Your task to perform on an android device: Toggle the flashlight Image 0: 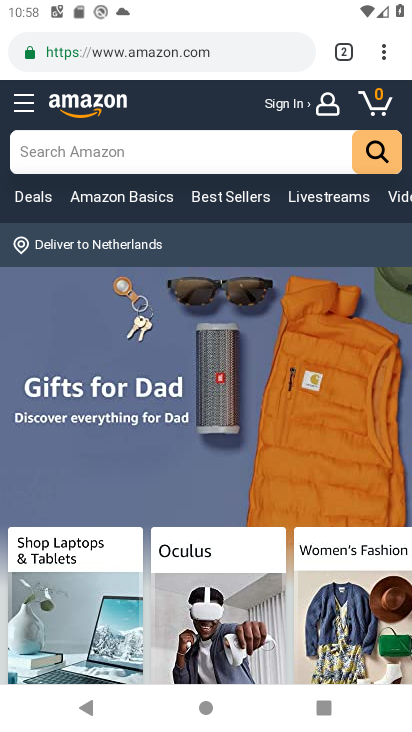
Step 0: press home button
Your task to perform on an android device: Toggle the flashlight Image 1: 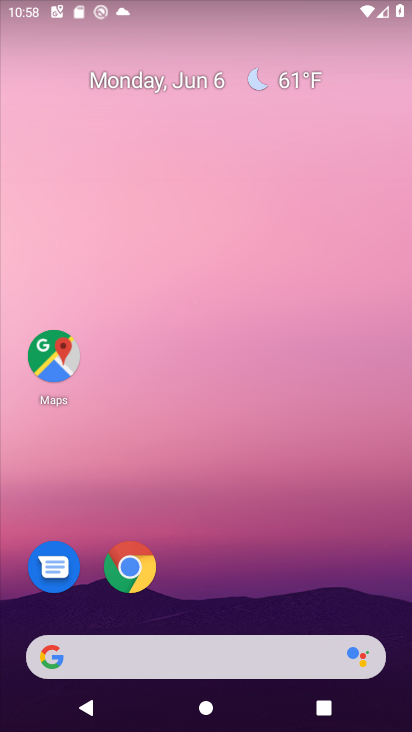
Step 1: drag from (222, 721) to (217, 4)
Your task to perform on an android device: Toggle the flashlight Image 2: 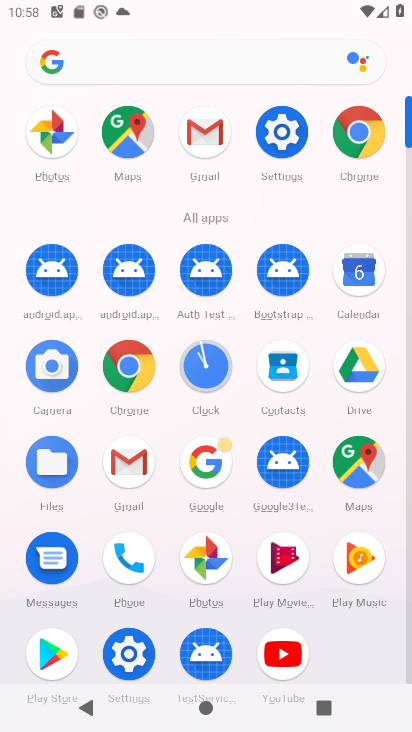
Step 2: click (277, 136)
Your task to perform on an android device: Toggle the flashlight Image 3: 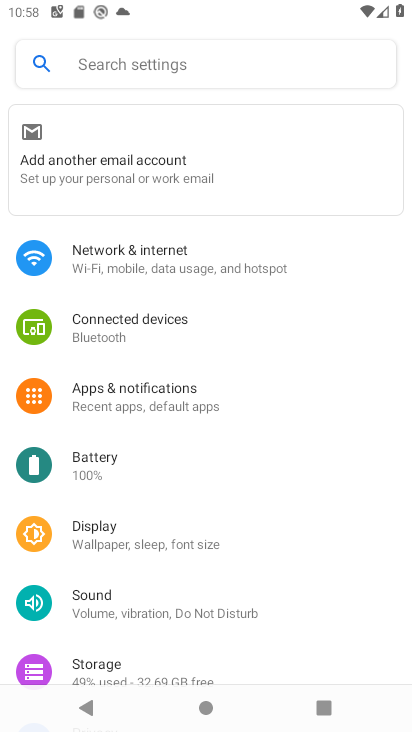
Step 3: task complete